Your task to perform on an android device: turn on javascript in the chrome app Image 0: 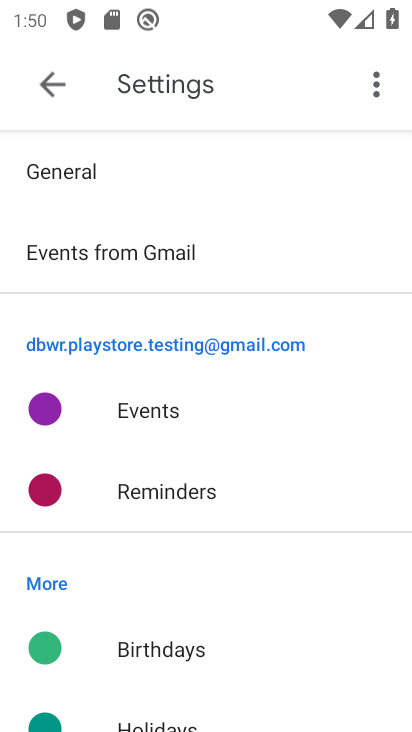
Step 0: press home button
Your task to perform on an android device: turn on javascript in the chrome app Image 1: 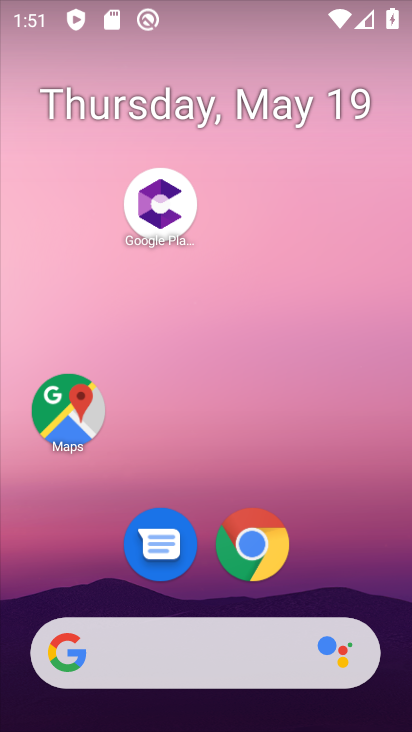
Step 1: click (271, 546)
Your task to perform on an android device: turn on javascript in the chrome app Image 2: 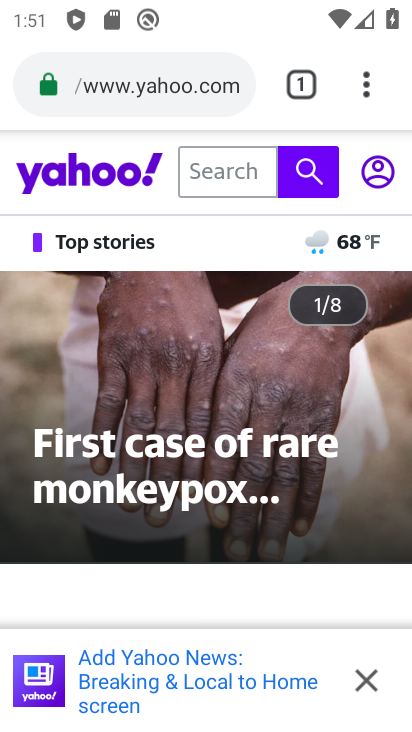
Step 2: click (363, 75)
Your task to perform on an android device: turn on javascript in the chrome app Image 3: 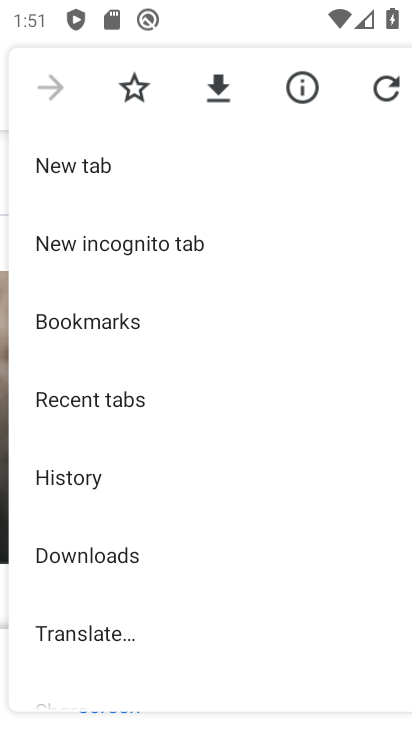
Step 3: drag from (203, 650) to (181, 300)
Your task to perform on an android device: turn on javascript in the chrome app Image 4: 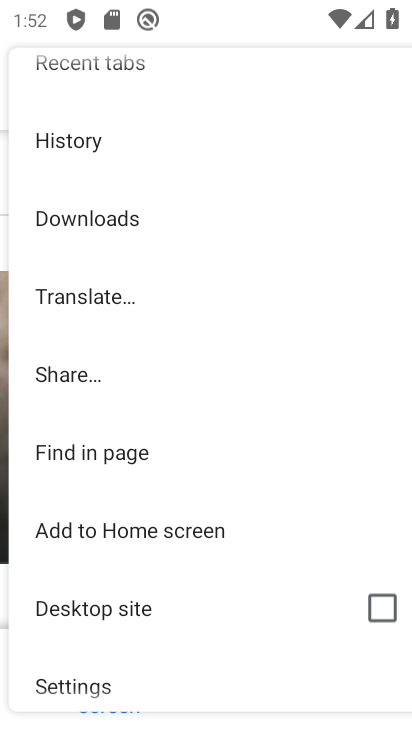
Step 4: click (68, 679)
Your task to perform on an android device: turn on javascript in the chrome app Image 5: 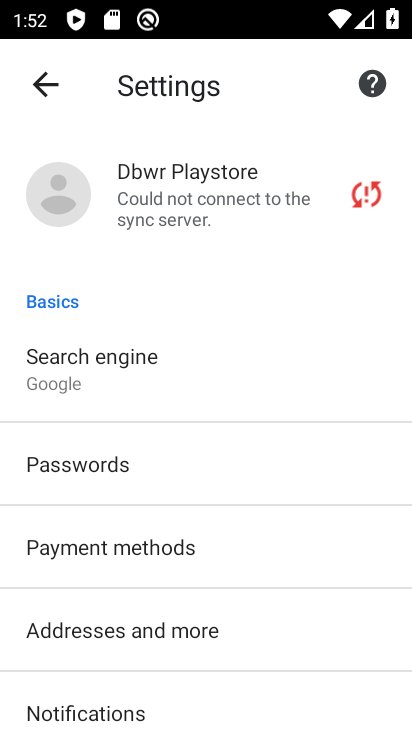
Step 5: drag from (285, 682) to (299, 305)
Your task to perform on an android device: turn on javascript in the chrome app Image 6: 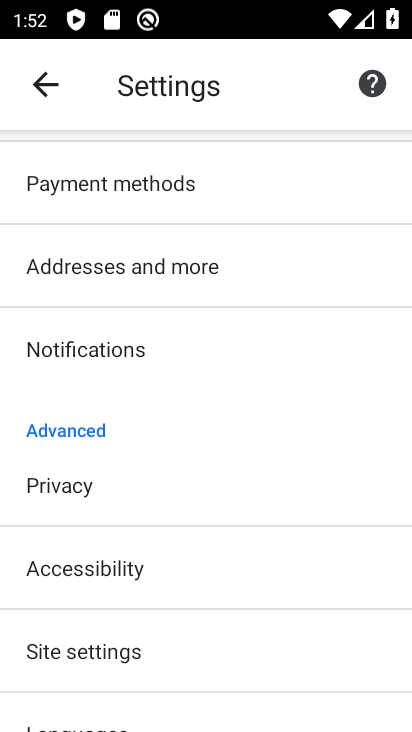
Step 6: click (92, 655)
Your task to perform on an android device: turn on javascript in the chrome app Image 7: 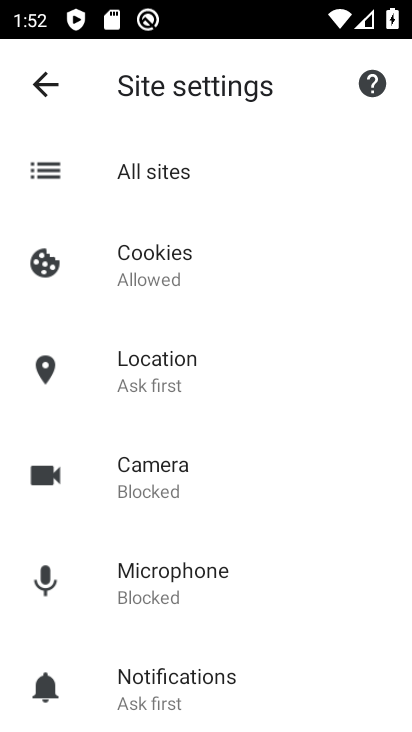
Step 7: drag from (231, 639) to (237, 423)
Your task to perform on an android device: turn on javascript in the chrome app Image 8: 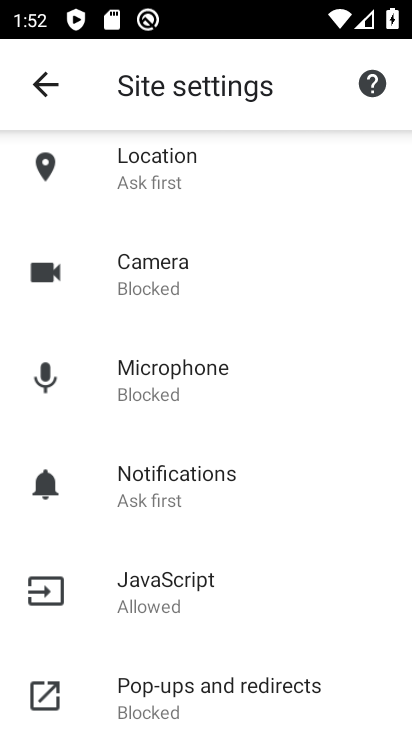
Step 8: click (164, 611)
Your task to perform on an android device: turn on javascript in the chrome app Image 9: 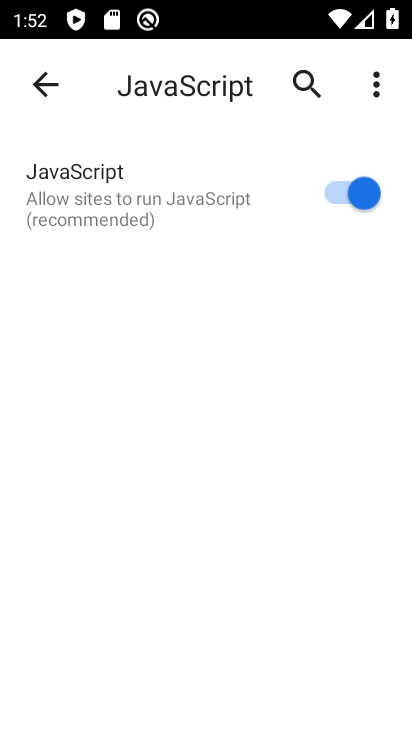
Step 9: click (348, 199)
Your task to perform on an android device: turn on javascript in the chrome app Image 10: 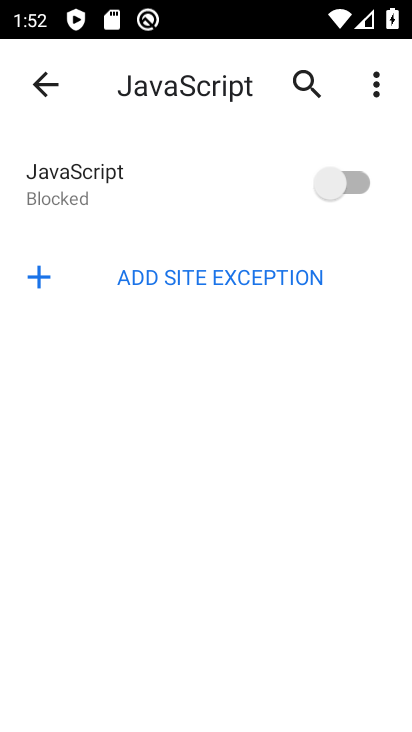
Step 10: click (348, 196)
Your task to perform on an android device: turn on javascript in the chrome app Image 11: 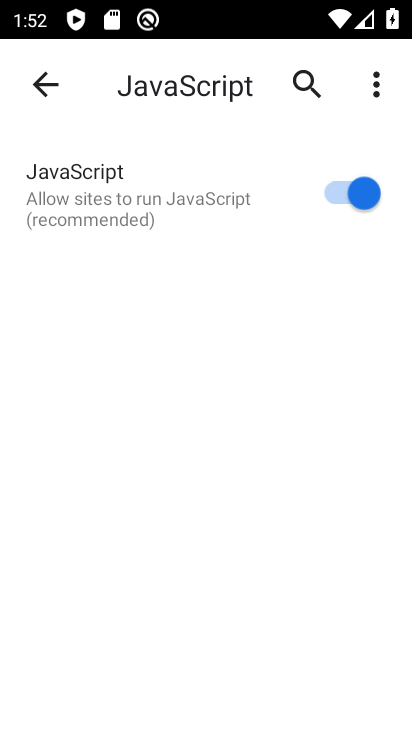
Step 11: task complete